Your task to perform on an android device: change the clock display to show seconds Image 0: 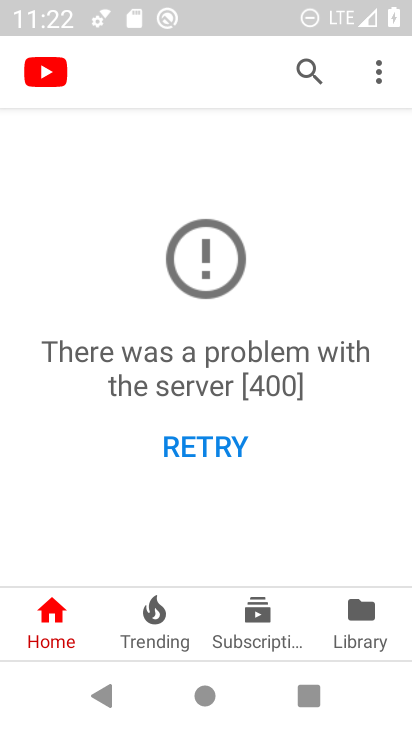
Step 0: press home button
Your task to perform on an android device: change the clock display to show seconds Image 1: 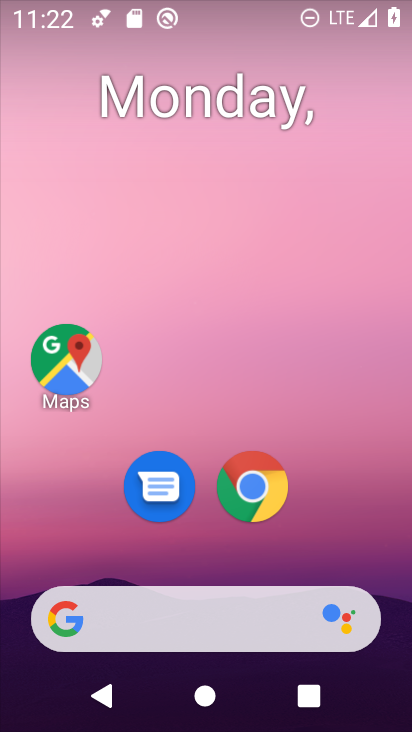
Step 1: drag from (45, 671) to (285, 200)
Your task to perform on an android device: change the clock display to show seconds Image 2: 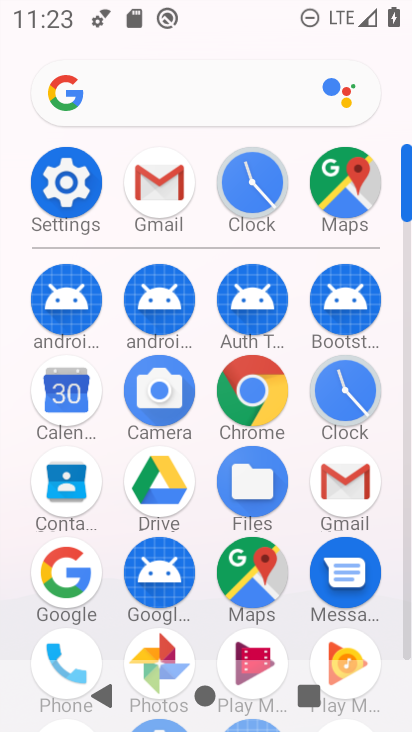
Step 2: click (357, 410)
Your task to perform on an android device: change the clock display to show seconds Image 3: 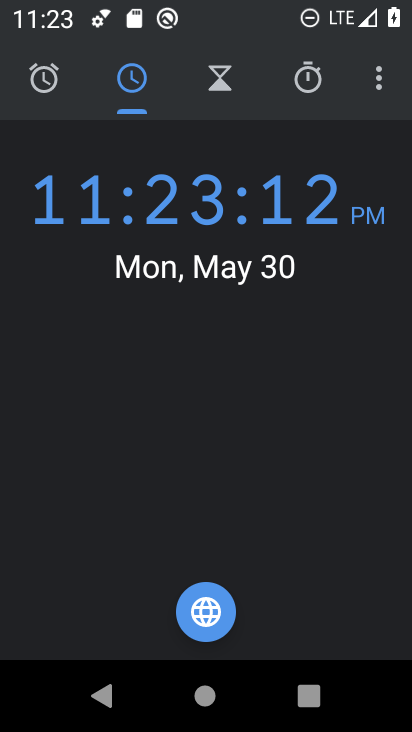
Step 3: click (371, 80)
Your task to perform on an android device: change the clock display to show seconds Image 4: 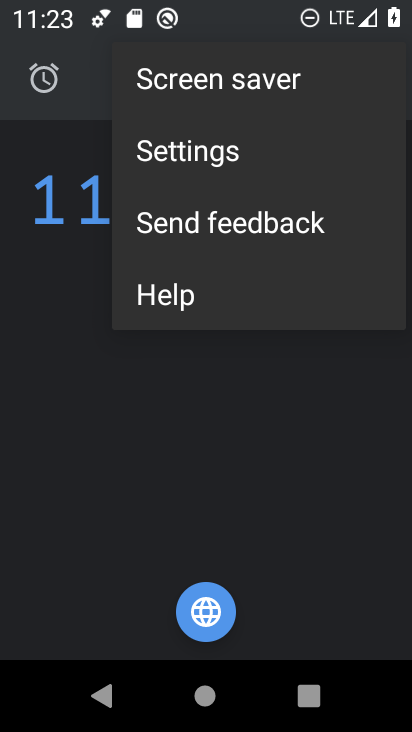
Step 4: click (276, 146)
Your task to perform on an android device: change the clock display to show seconds Image 5: 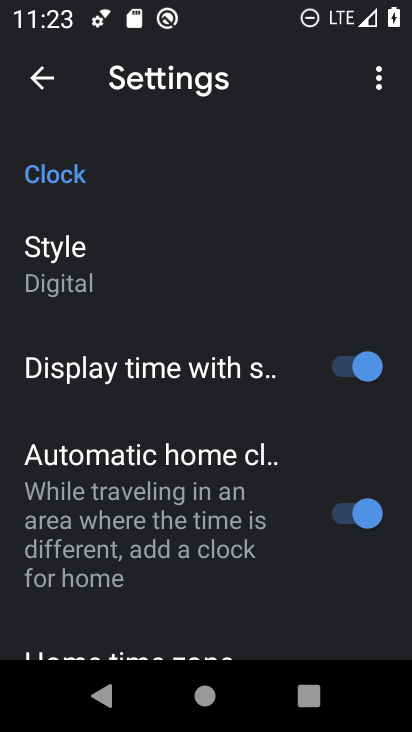
Step 5: task complete